Your task to perform on an android device: read, delete, or share a saved page in the chrome app Image 0: 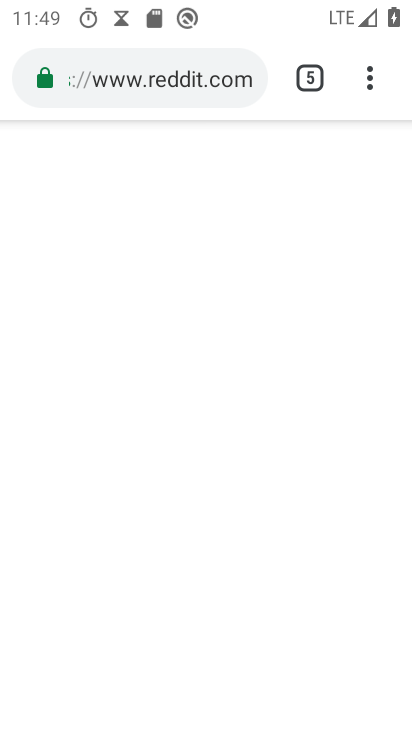
Step 0: press home button
Your task to perform on an android device: read, delete, or share a saved page in the chrome app Image 1: 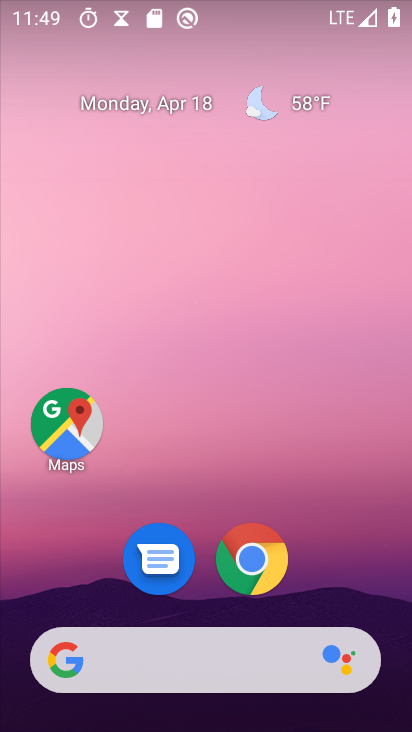
Step 1: click (259, 557)
Your task to perform on an android device: read, delete, or share a saved page in the chrome app Image 2: 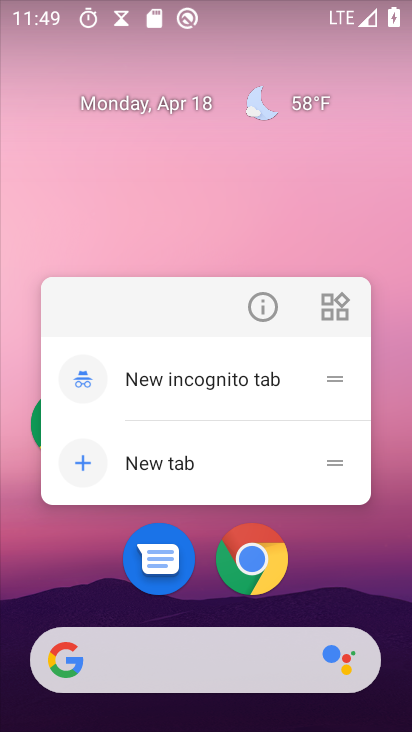
Step 2: click (253, 558)
Your task to perform on an android device: read, delete, or share a saved page in the chrome app Image 3: 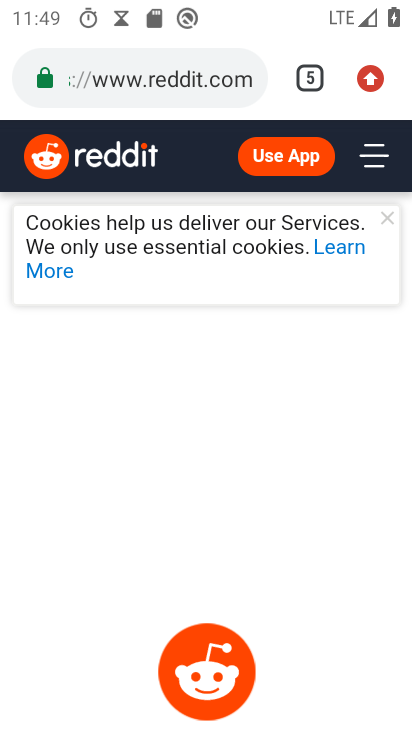
Step 3: click (372, 86)
Your task to perform on an android device: read, delete, or share a saved page in the chrome app Image 4: 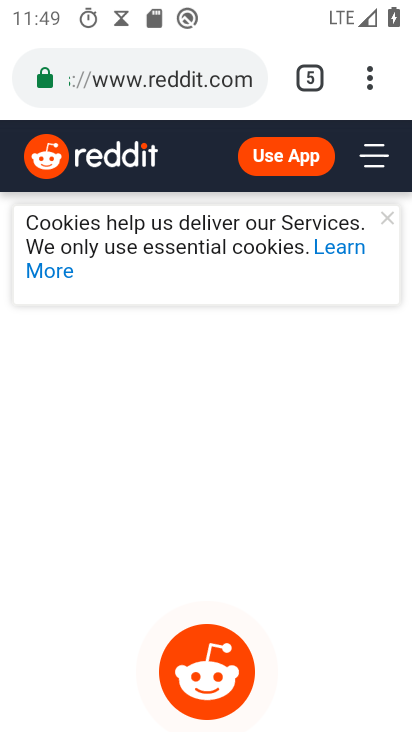
Step 4: click (365, 80)
Your task to perform on an android device: read, delete, or share a saved page in the chrome app Image 5: 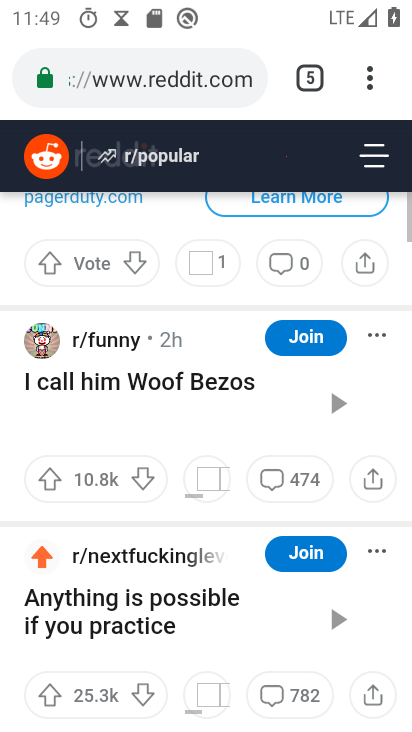
Step 5: click (370, 77)
Your task to perform on an android device: read, delete, or share a saved page in the chrome app Image 6: 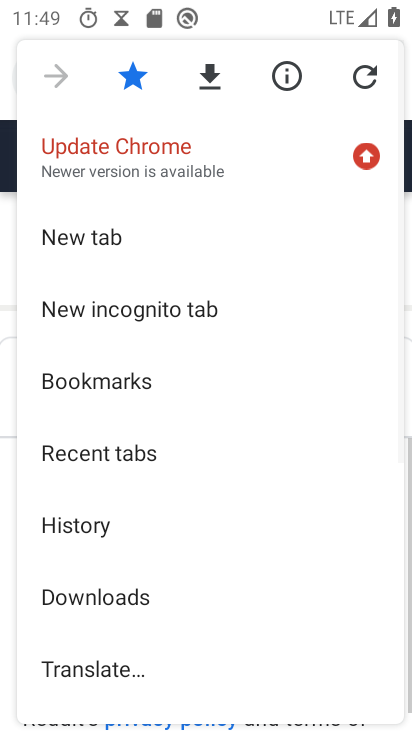
Step 6: drag from (155, 664) to (153, 194)
Your task to perform on an android device: read, delete, or share a saved page in the chrome app Image 7: 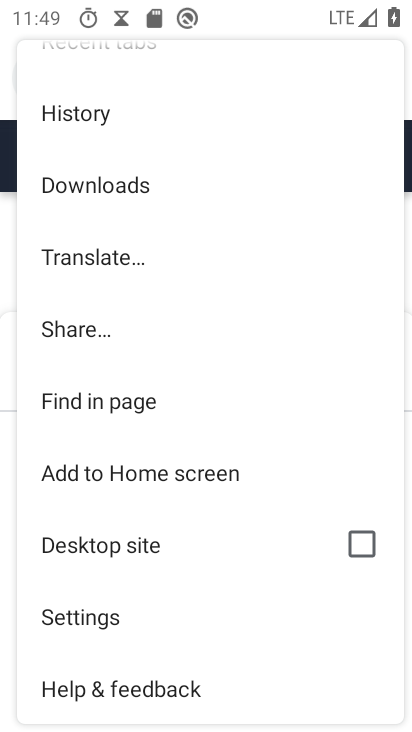
Step 7: drag from (148, 197) to (150, 542)
Your task to perform on an android device: read, delete, or share a saved page in the chrome app Image 8: 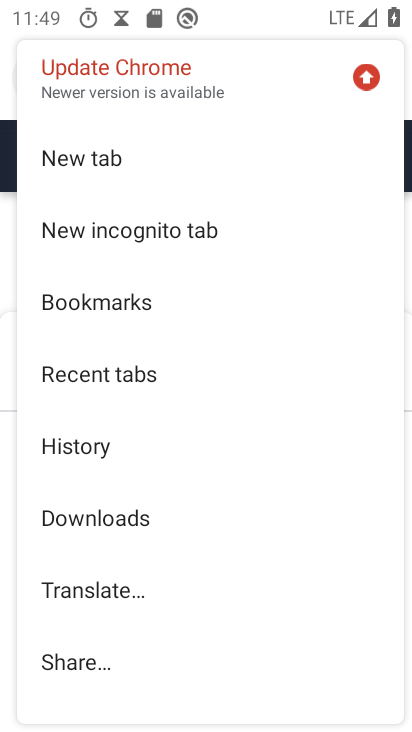
Step 8: click (115, 308)
Your task to perform on an android device: read, delete, or share a saved page in the chrome app Image 9: 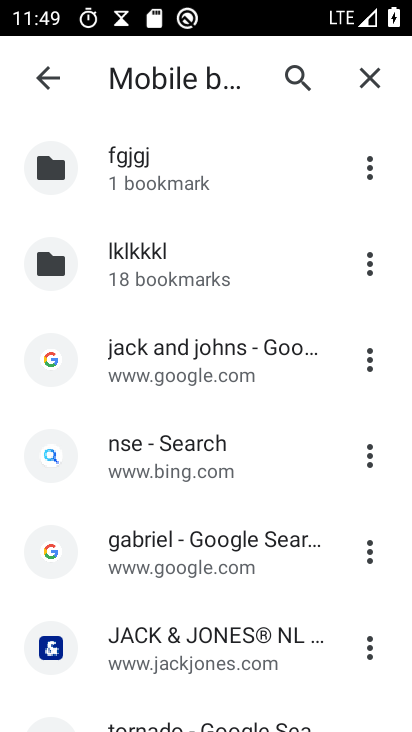
Step 9: click (372, 453)
Your task to perform on an android device: read, delete, or share a saved page in the chrome app Image 10: 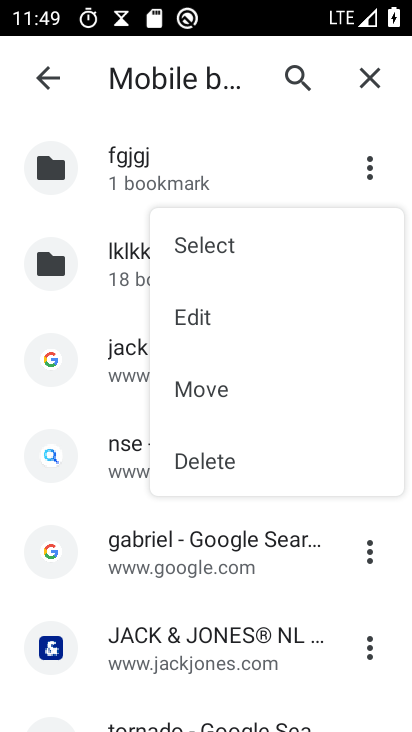
Step 10: click (217, 463)
Your task to perform on an android device: read, delete, or share a saved page in the chrome app Image 11: 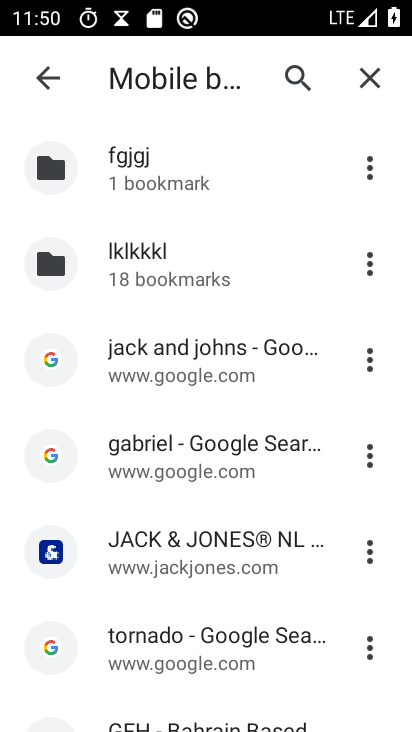
Step 11: task complete